Your task to perform on an android device: Is it going to rain tomorrow? Image 0: 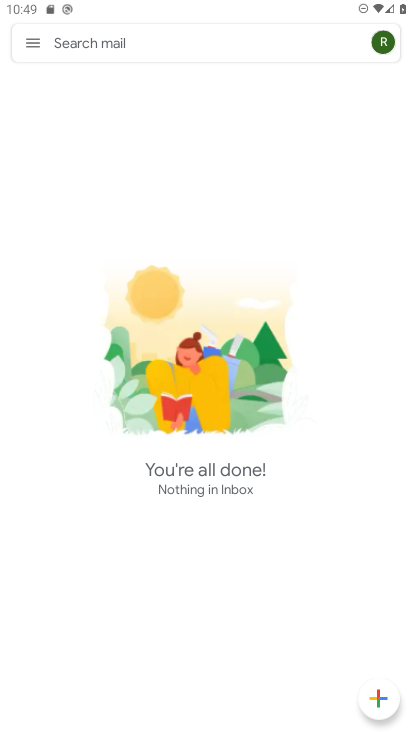
Step 0: press home button
Your task to perform on an android device: Is it going to rain tomorrow? Image 1: 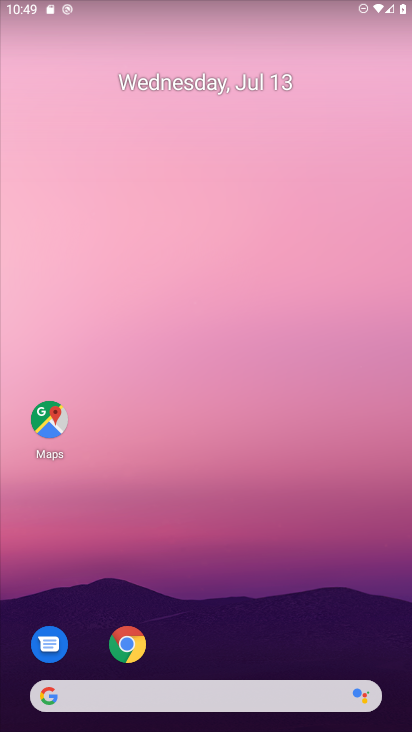
Step 1: click (183, 691)
Your task to perform on an android device: Is it going to rain tomorrow? Image 2: 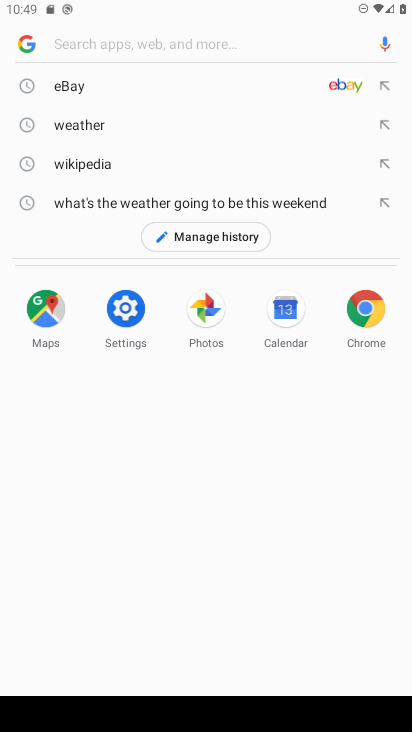
Step 2: click (87, 119)
Your task to perform on an android device: Is it going to rain tomorrow? Image 3: 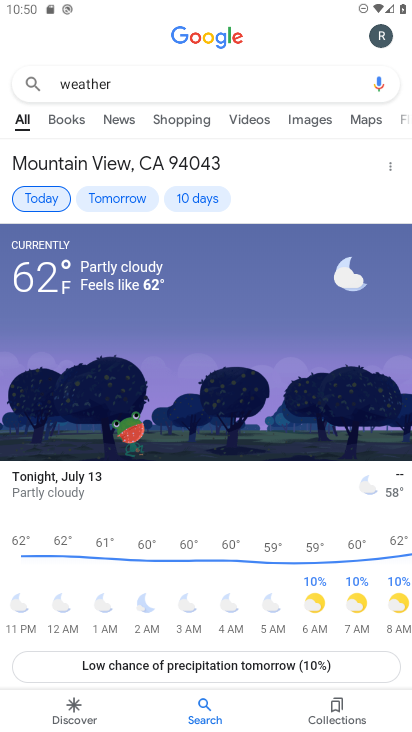
Step 3: click (108, 197)
Your task to perform on an android device: Is it going to rain tomorrow? Image 4: 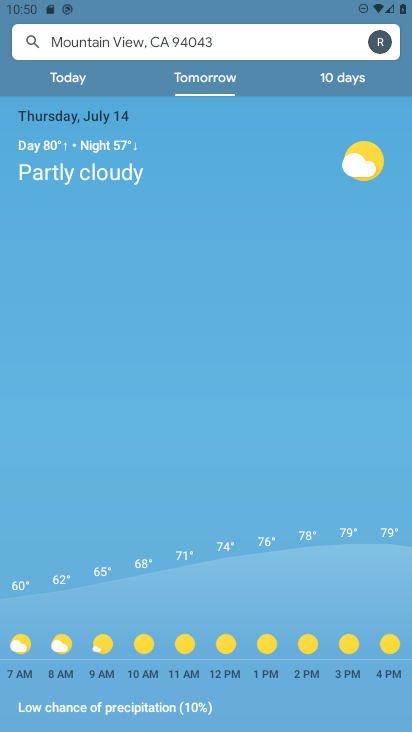
Step 4: task complete